Your task to perform on an android device: turn on improve location accuracy Image 0: 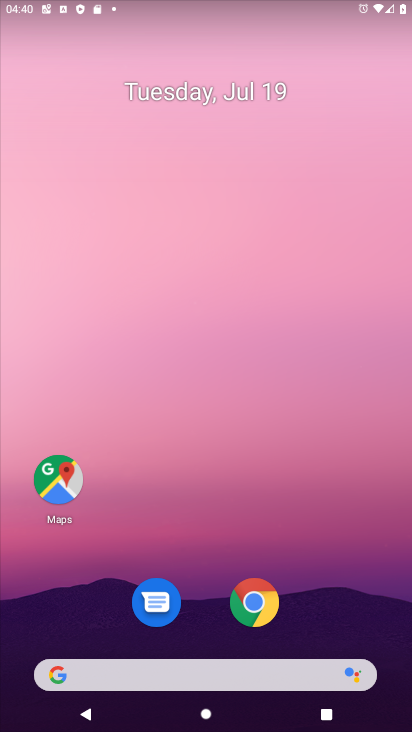
Step 0: drag from (178, 646) to (159, 91)
Your task to perform on an android device: turn on improve location accuracy Image 1: 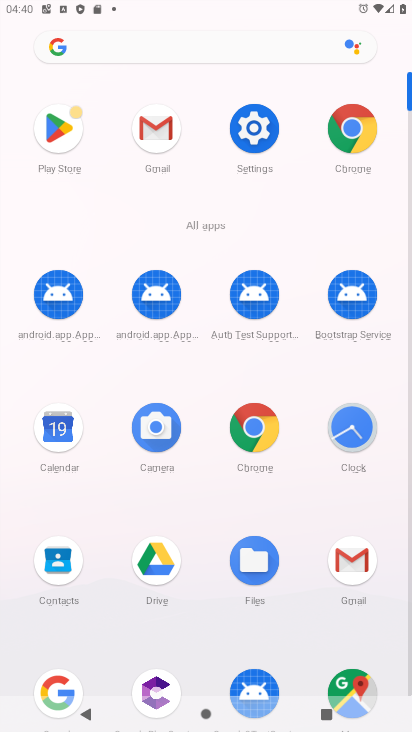
Step 1: click (261, 136)
Your task to perform on an android device: turn on improve location accuracy Image 2: 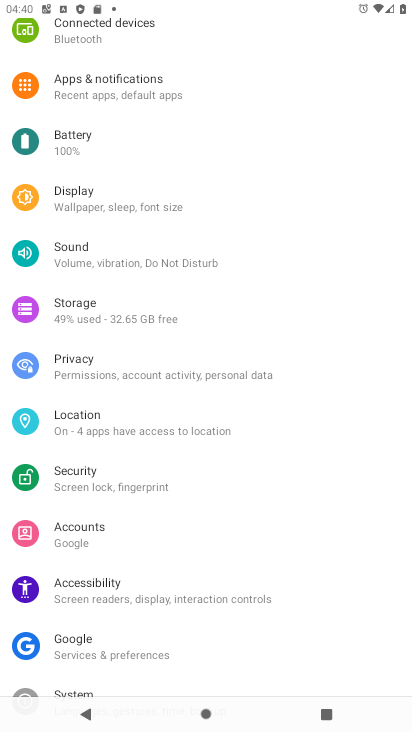
Step 2: click (78, 447)
Your task to perform on an android device: turn on improve location accuracy Image 3: 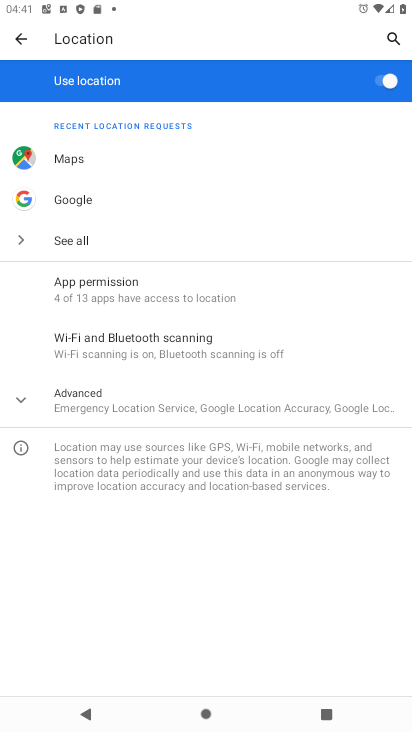
Step 3: click (126, 397)
Your task to perform on an android device: turn on improve location accuracy Image 4: 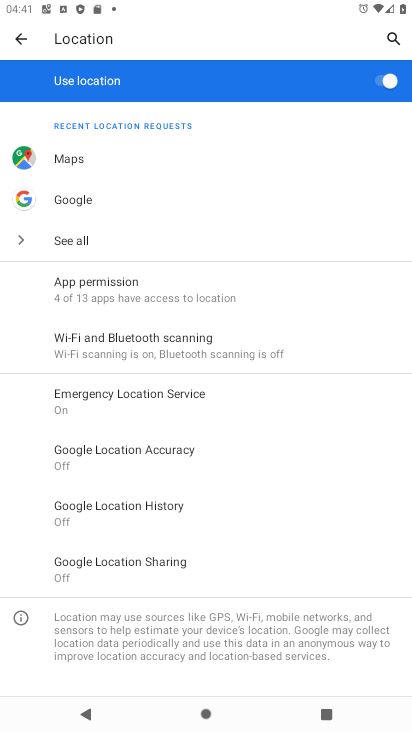
Step 4: click (122, 463)
Your task to perform on an android device: turn on improve location accuracy Image 5: 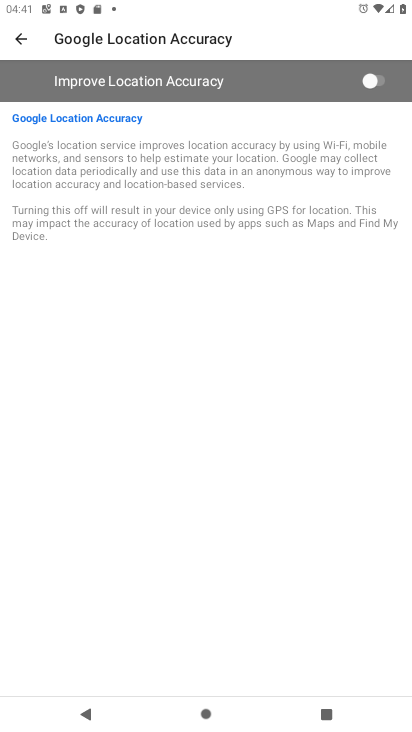
Step 5: click (375, 86)
Your task to perform on an android device: turn on improve location accuracy Image 6: 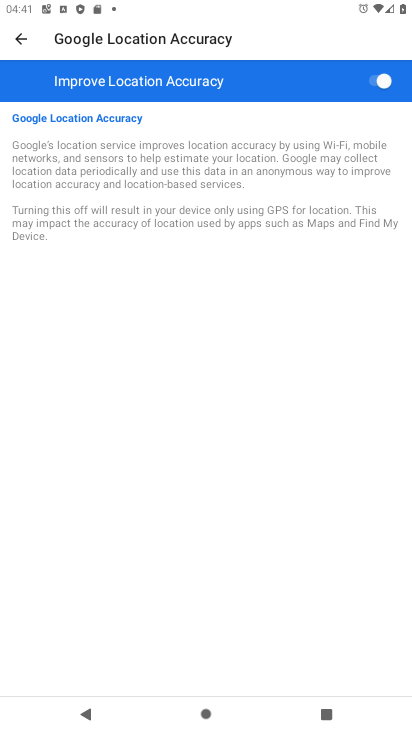
Step 6: task complete